Your task to perform on an android device: Show the shopping cart on ebay.com. Add "usb-b" to the cart on ebay.com, then select checkout. Image 0: 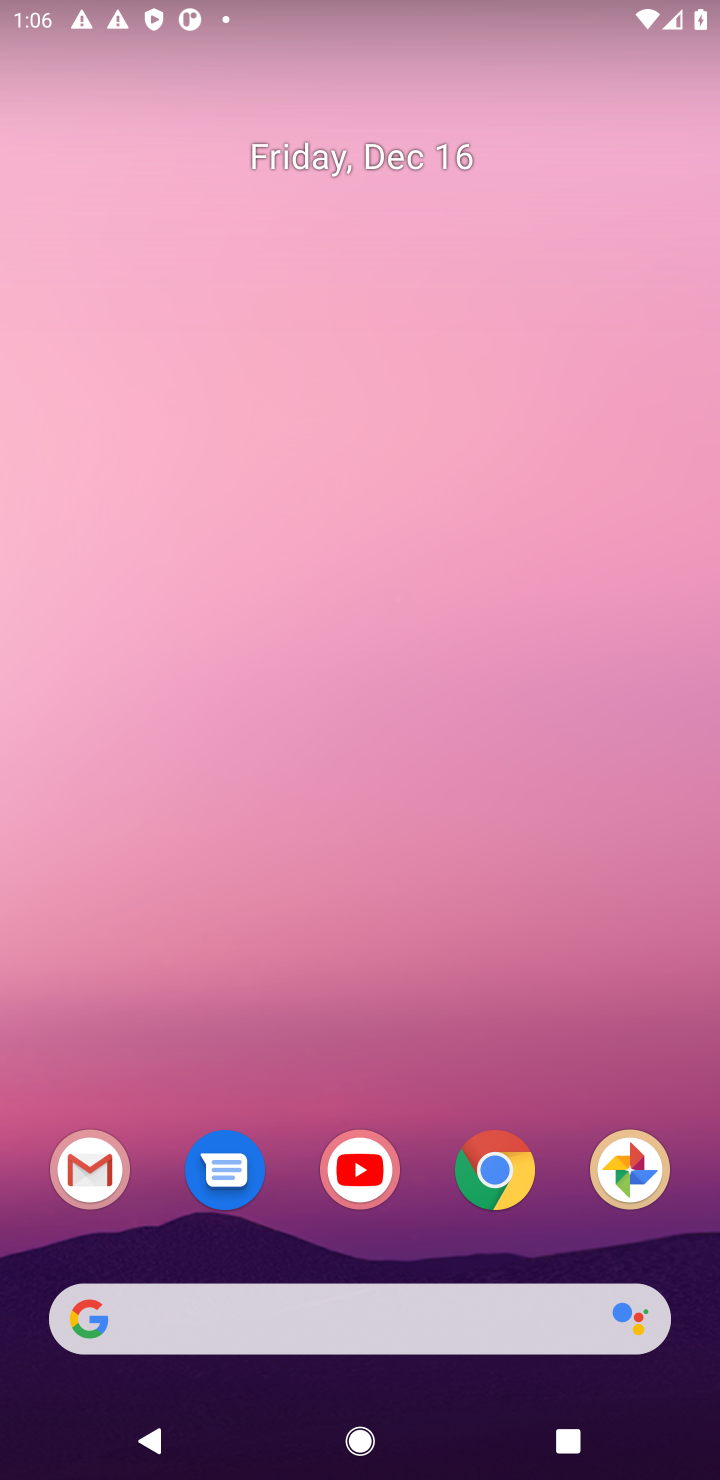
Step 0: click (507, 1178)
Your task to perform on an android device: Show the shopping cart on ebay.com. Add "usb-b" to the cart on ebay.com, then select checkout. Image 1: 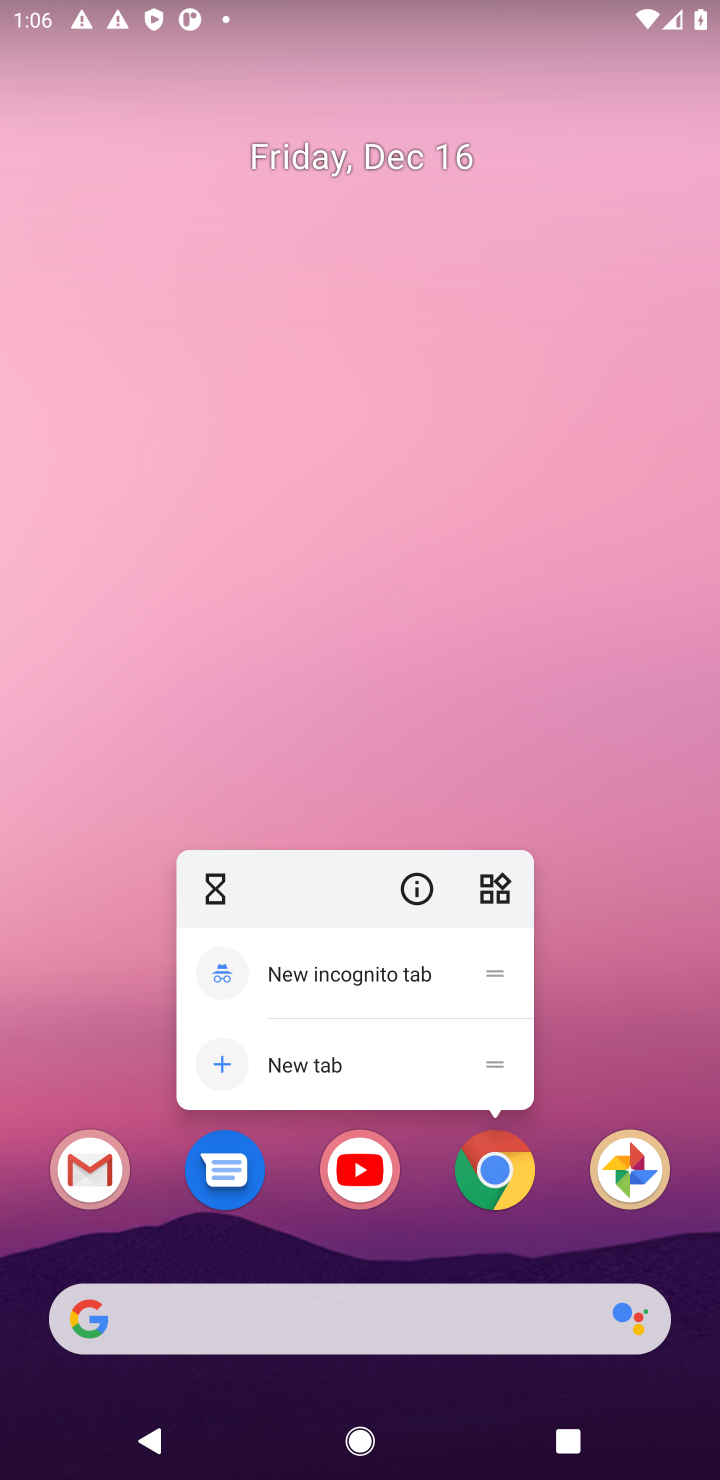
Step 1: click (501, 1179)
Your task to perform on an android device: Show the shopping cart on ebay.com. Add "usb-b" to the cart on ebay.com, then select checkout. Image 2: 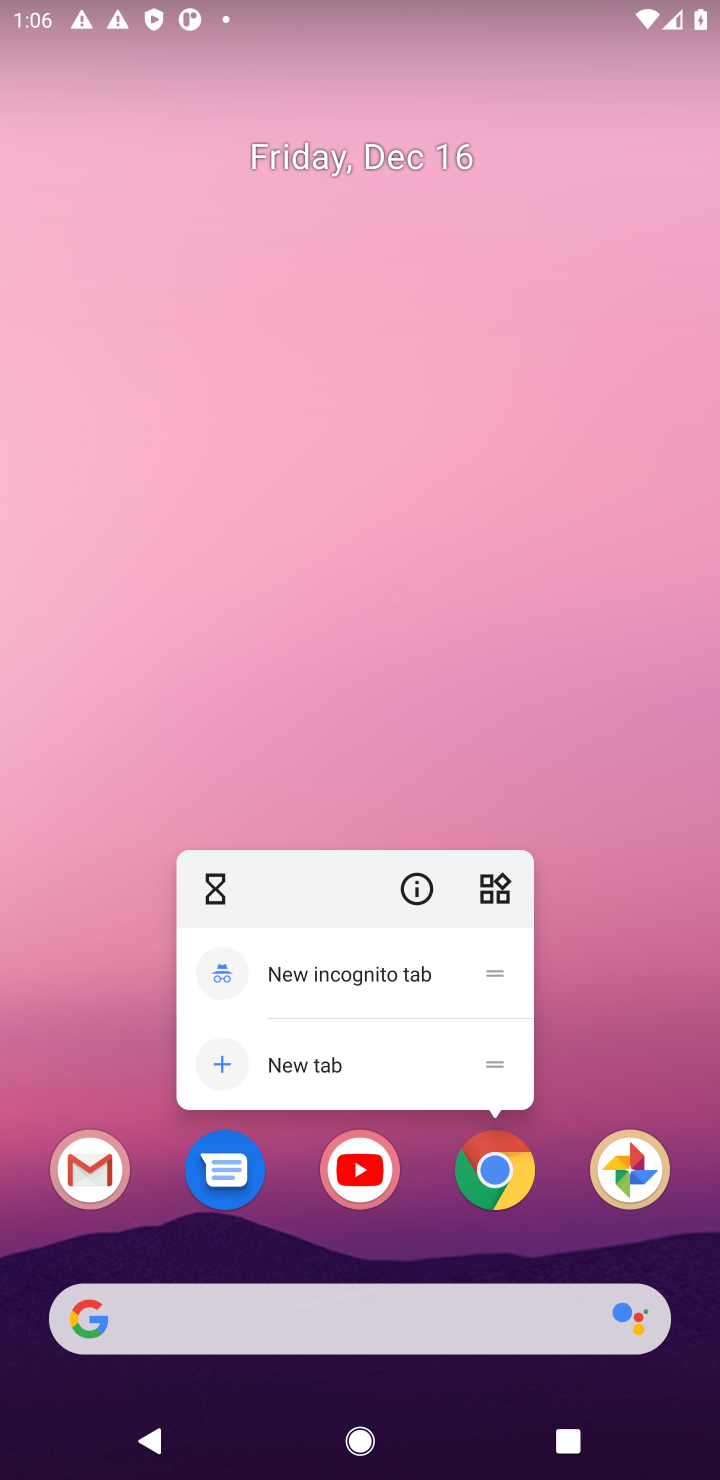
Step 2: click (501, 1179)
Your task to perform on an android device: Show the shopping cart on ebay.com. Add "usb-b" to the cart on ebay.com, then select checkout. Image 3: 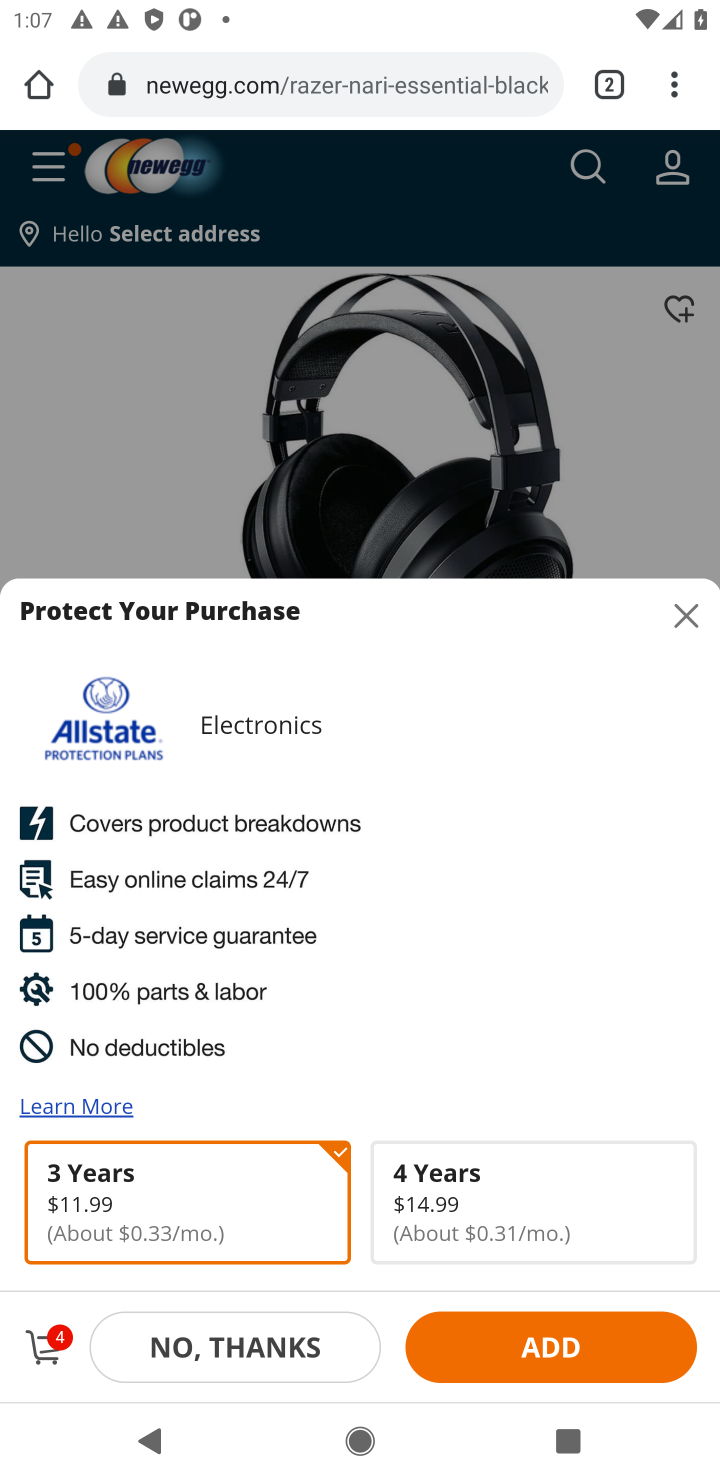
Step 3: click (263, 91)
Your task to perform on an android device: Show the shopping cart on ebay.com. Add "usb-b" to the cart on ebay.com, then select checkout. Image 4: 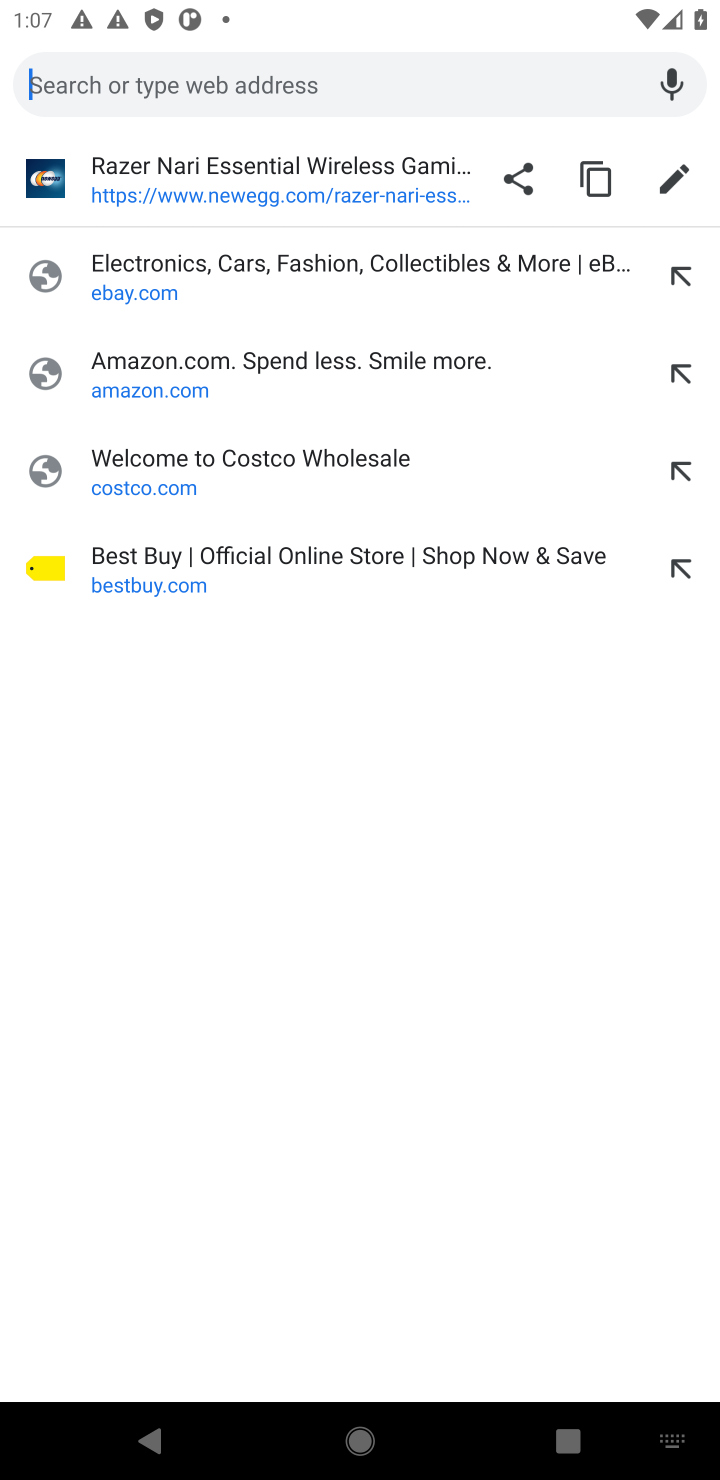
Step 4: type "ebay.com"
Your task to perform on an android device: Show the shopping cart on ebay.com. Add "usb-b" to the cart on ebay.com, then select checkout. Image 5: 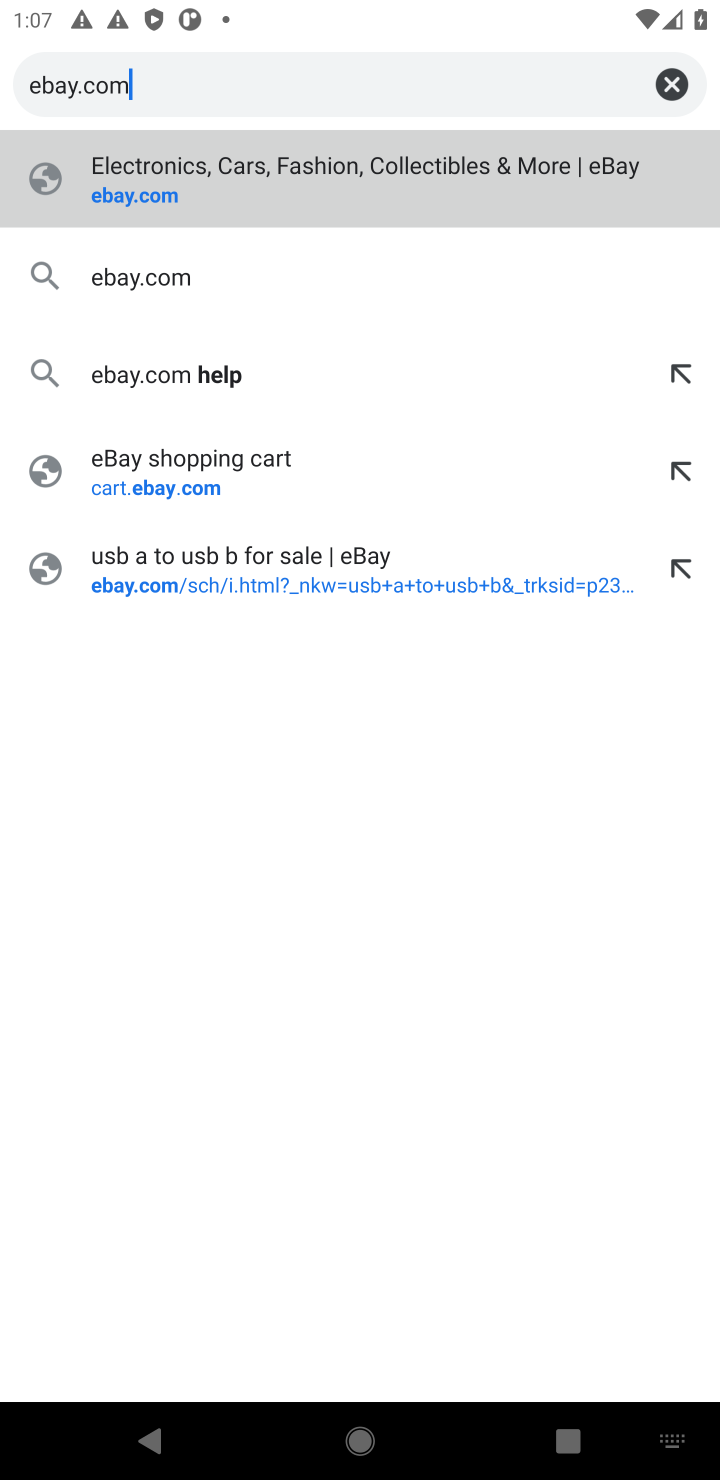
Step 5: click (113, 196)
Your task to perform on an android device: Show the shopping cart on ebay.com. Add "usb-b" to the cart on ebay.com, then select checkout. Image 6: 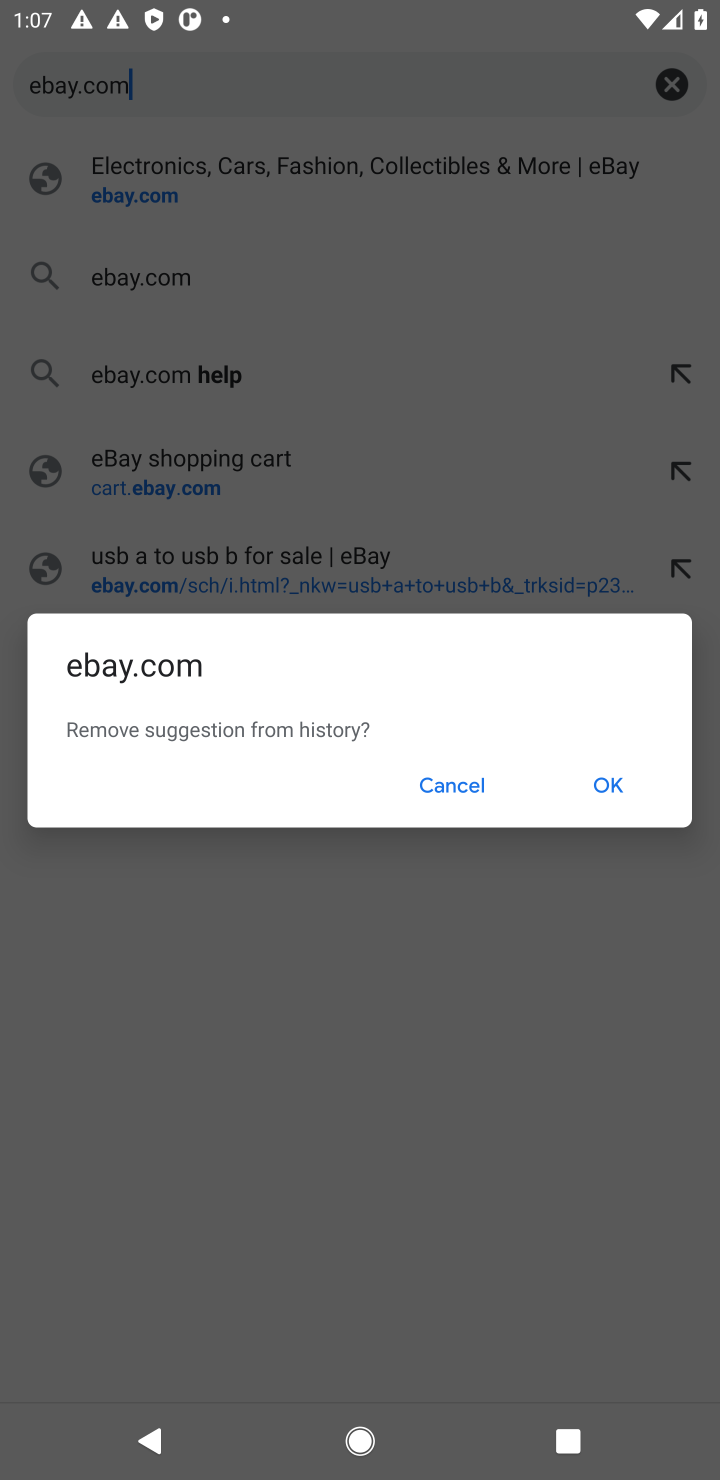
Step 6: click (472, 790)
Your task to perform on an android device: Show the shopping cart on ebay.com. Add "usb-b" to the cart on ebay.com, then select checkout. Image 7: 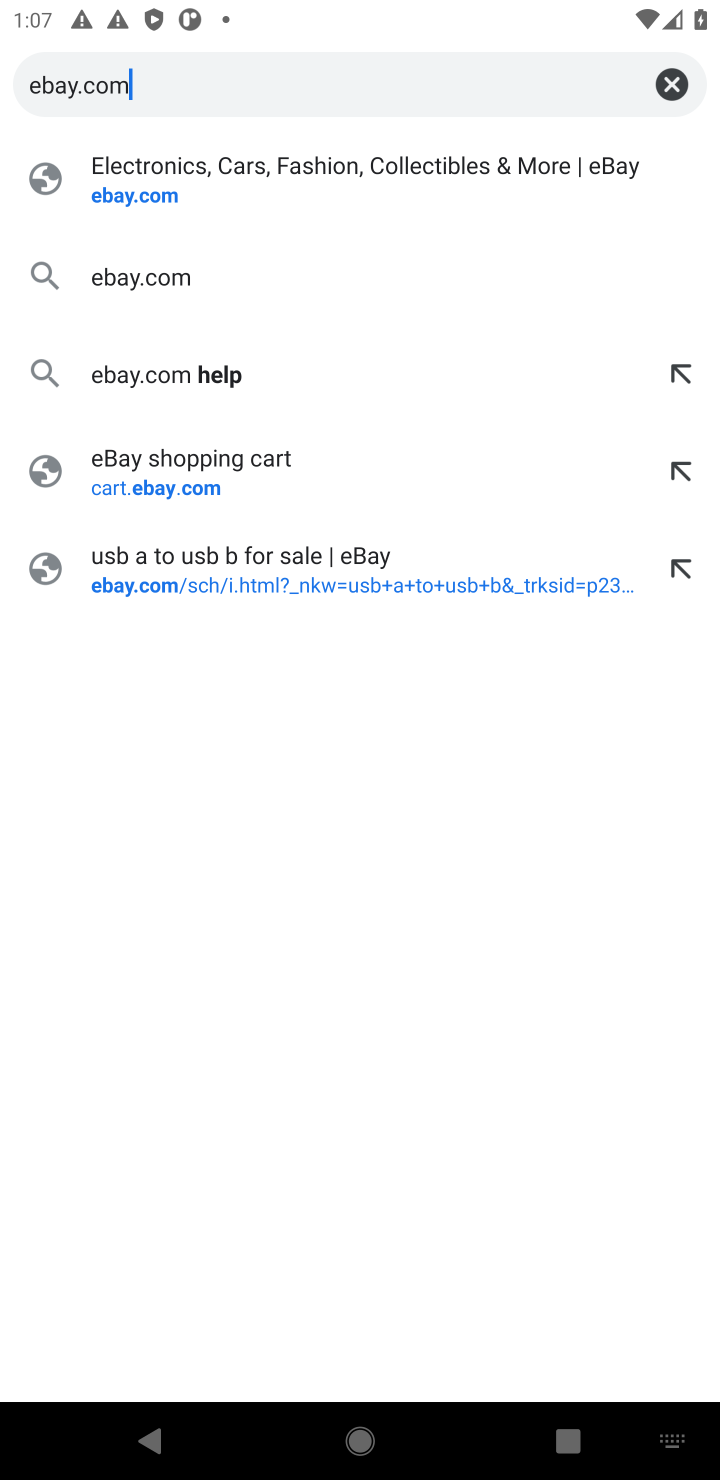
Step 7: click (148, 285)
Your task to perform on an android device: Show the shopping cart on ebay.com. Add "usb-b" to the cart on ebay.com, then select checkout. Image 8: 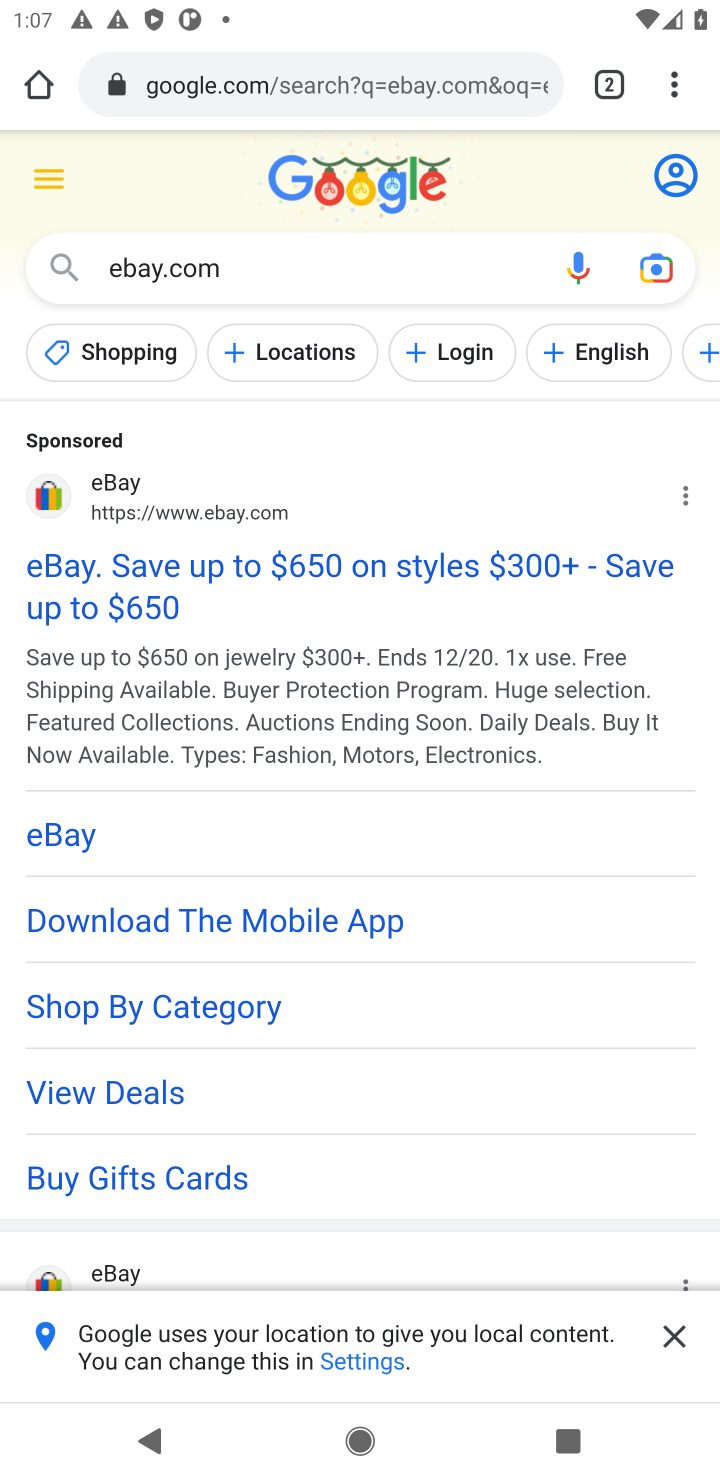
Step 8: drag from (227, 1043) to (274, 532)
Your task to perform on an android device: Show the shopping cart on ebay.com. Add "usb-b" to the cart on ebay.com, then select checkout. Image 9: 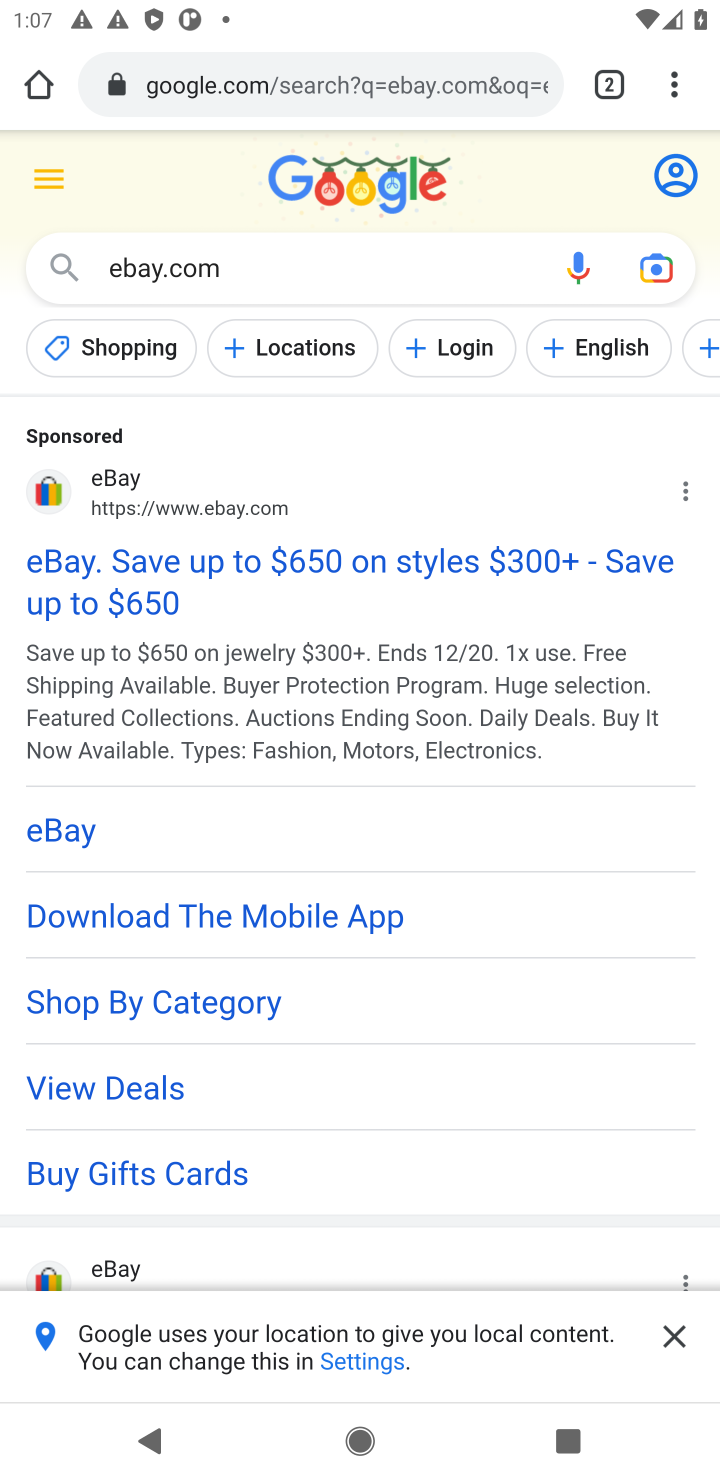
Step 9: drag from (399, 1128) to (426, 802)
Your task to perform on an android device: Show the shopping cart on ebay.com. Add "usb-b" to the cart on ebay.com, then select checkout. Image 10: 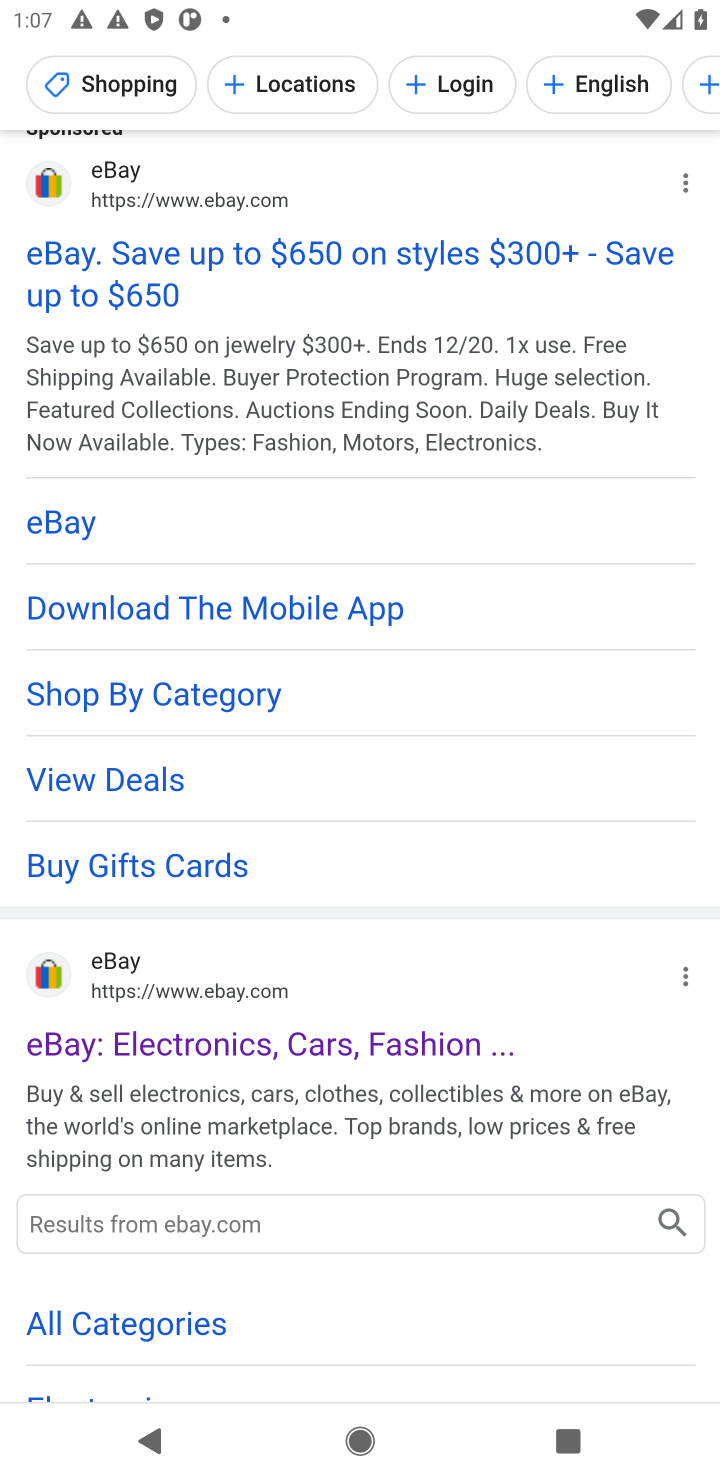
Step 10: click (101, 1051)
Your task to perform on an android device: Show the shopping cart on ebay.com. Add "usb-b" to the cart on ebay.com, then select checkout. Image 11: 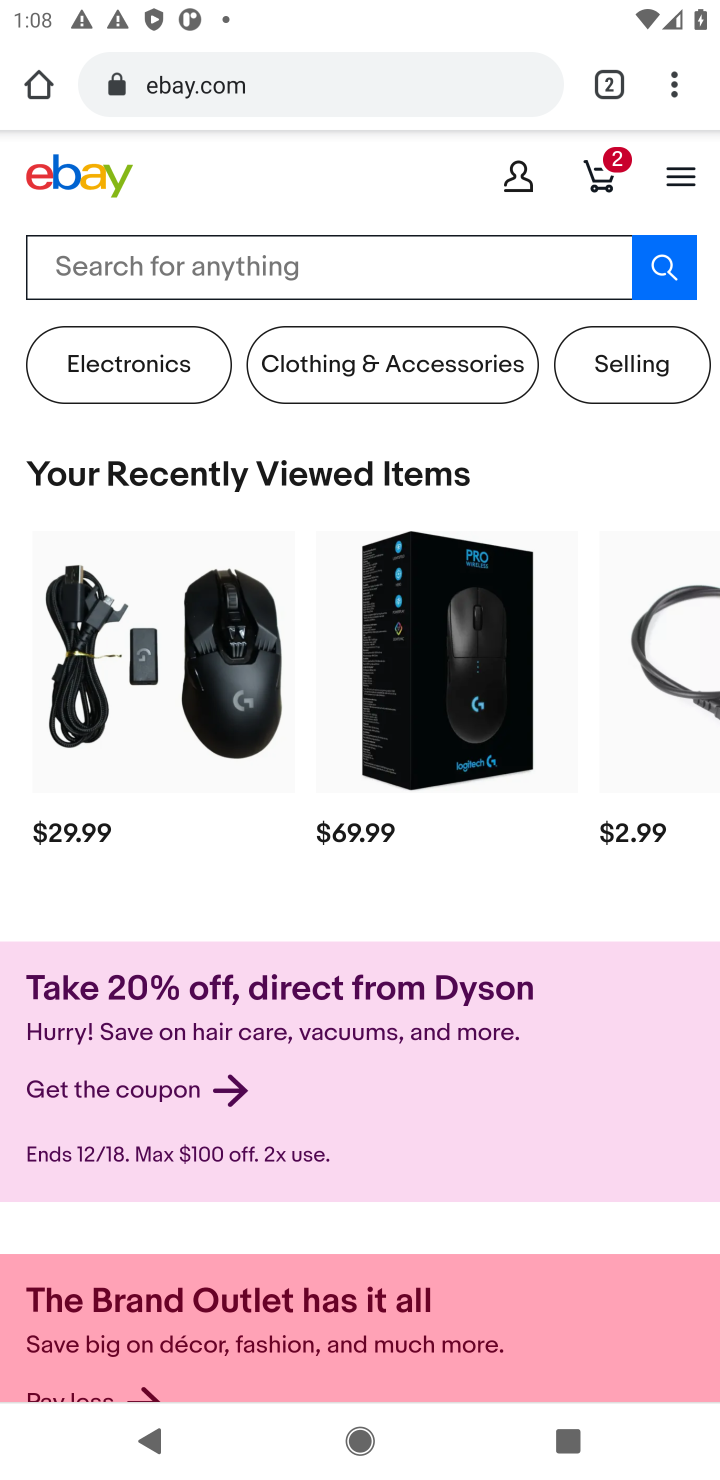
Step 11: click (594, 183)
Your task to perform on an android device: Show the shopping cart on ebay.com. Add "usb-b" to the cart on ebay.com, then select checkout. Image 12: 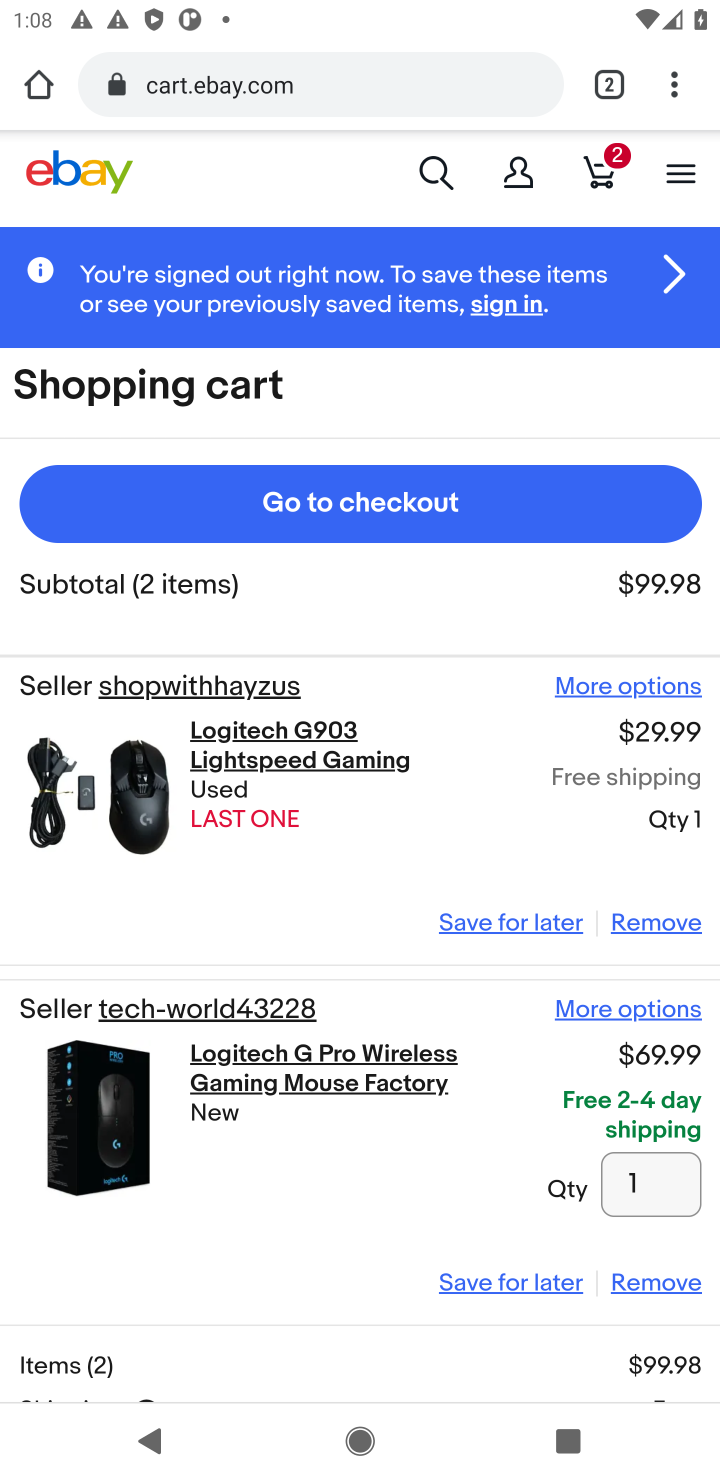
Step 12: click (431, 175)
Your task to perform on an android device: Show the shopping cart on ebay.com. Add "usb-b" to the cart on ebay.com, then select checkout. Image 13: 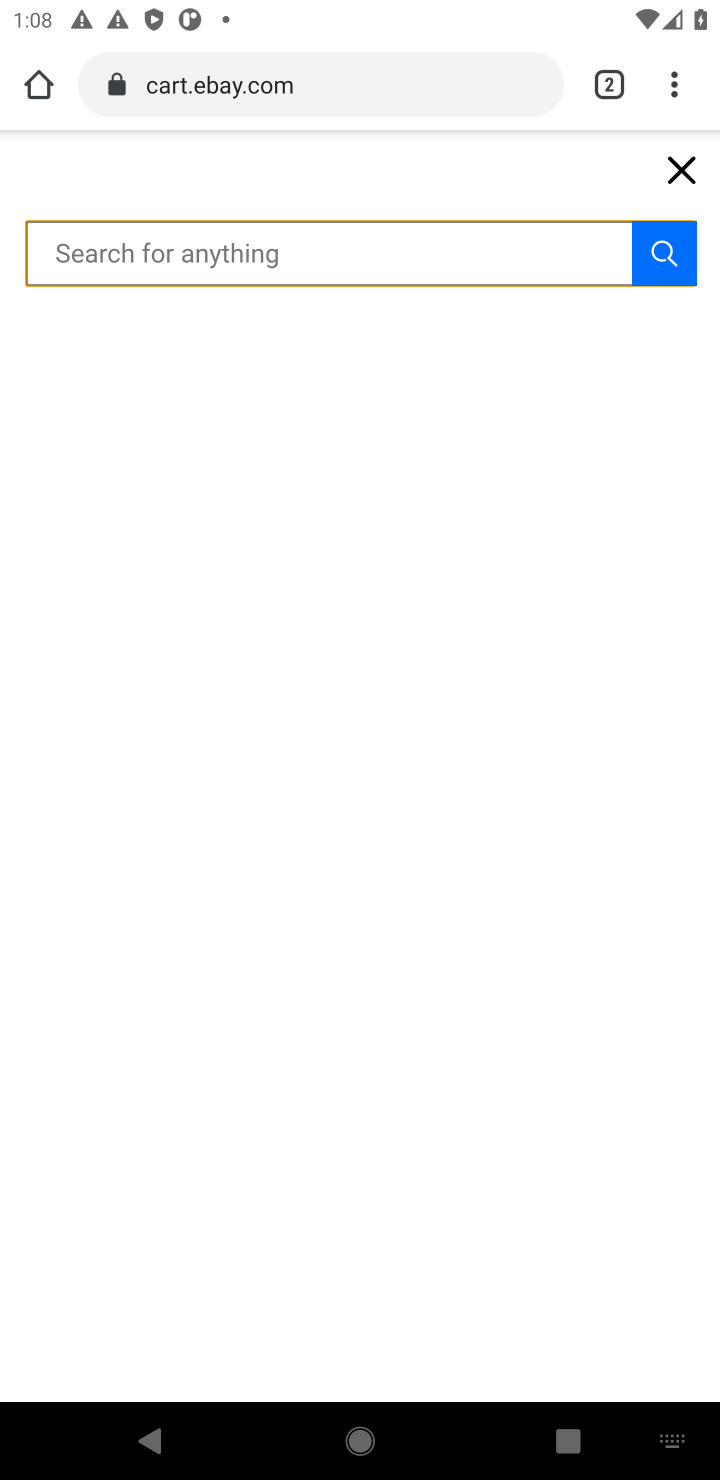
Step 13: type "usb-b"
Your task to perform on an android device: Show the shopping cart on ebay.com. Add "usb-b" to the cart on ebay.com, then select checkout. Image 14: 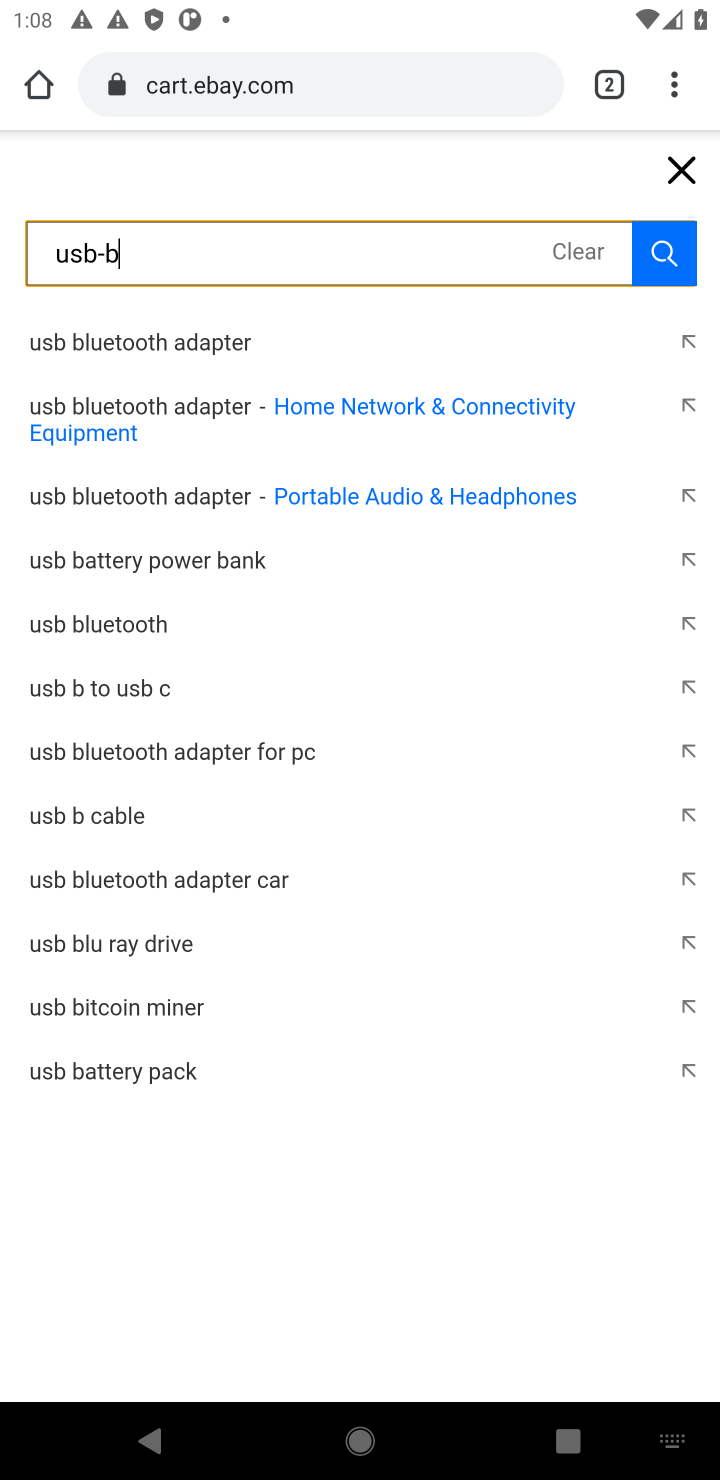
Step 14: click (672, 257)
Your task to perform on an android device: Show the shopping cart on ebay.com. Add "usb-b" to the cart on ebay.com, then select checkout. Image 15: 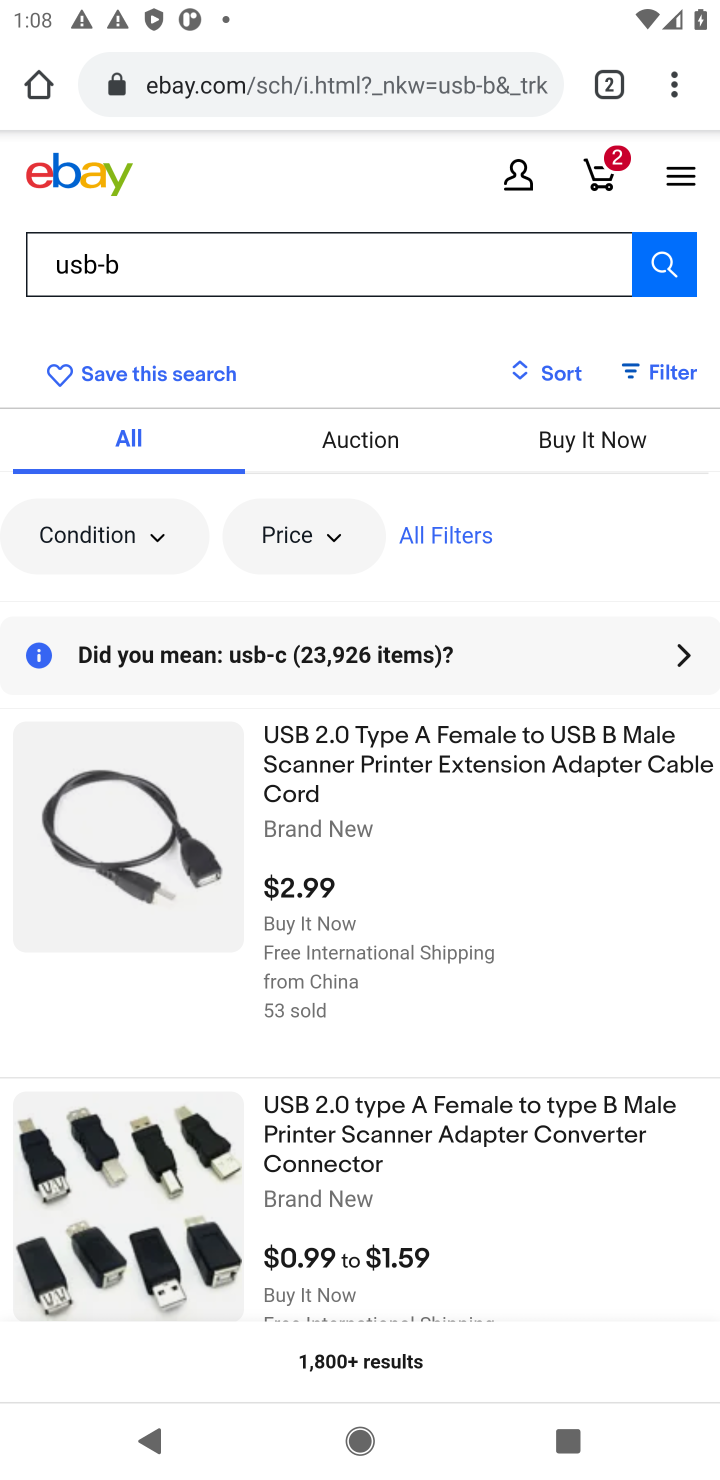
Step 15: click (337, 757)
Your task to perform on an android device: Show the shopping cart on ebay.com. Add "usb-b" to the cart on ebay.com, then select checkout. Image 16: 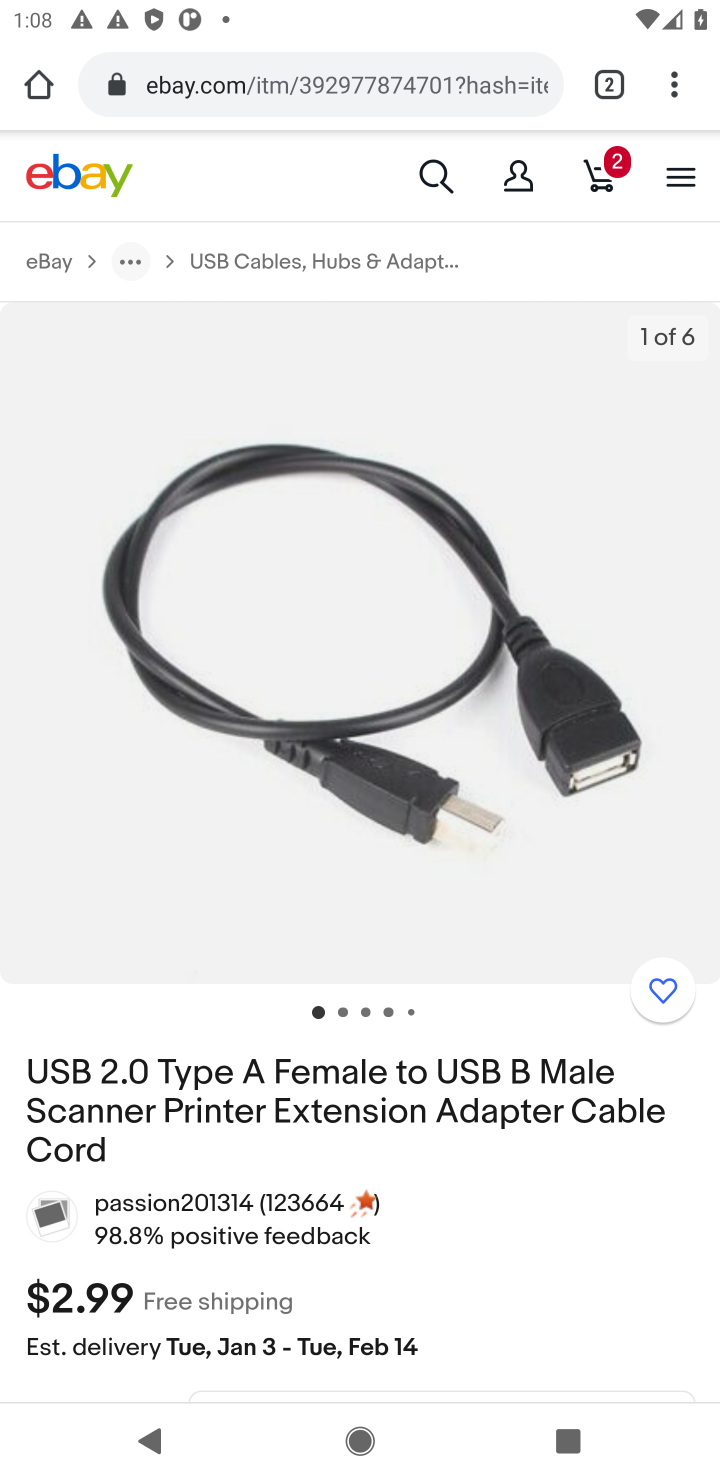
Step 16: drag from (230, 963) to (212, 622)
Your task to perform on an android device: Show the shopping cart on ebay.com. Add "usb-b" to the cart on ebay.com, then select checkout. Image 17: 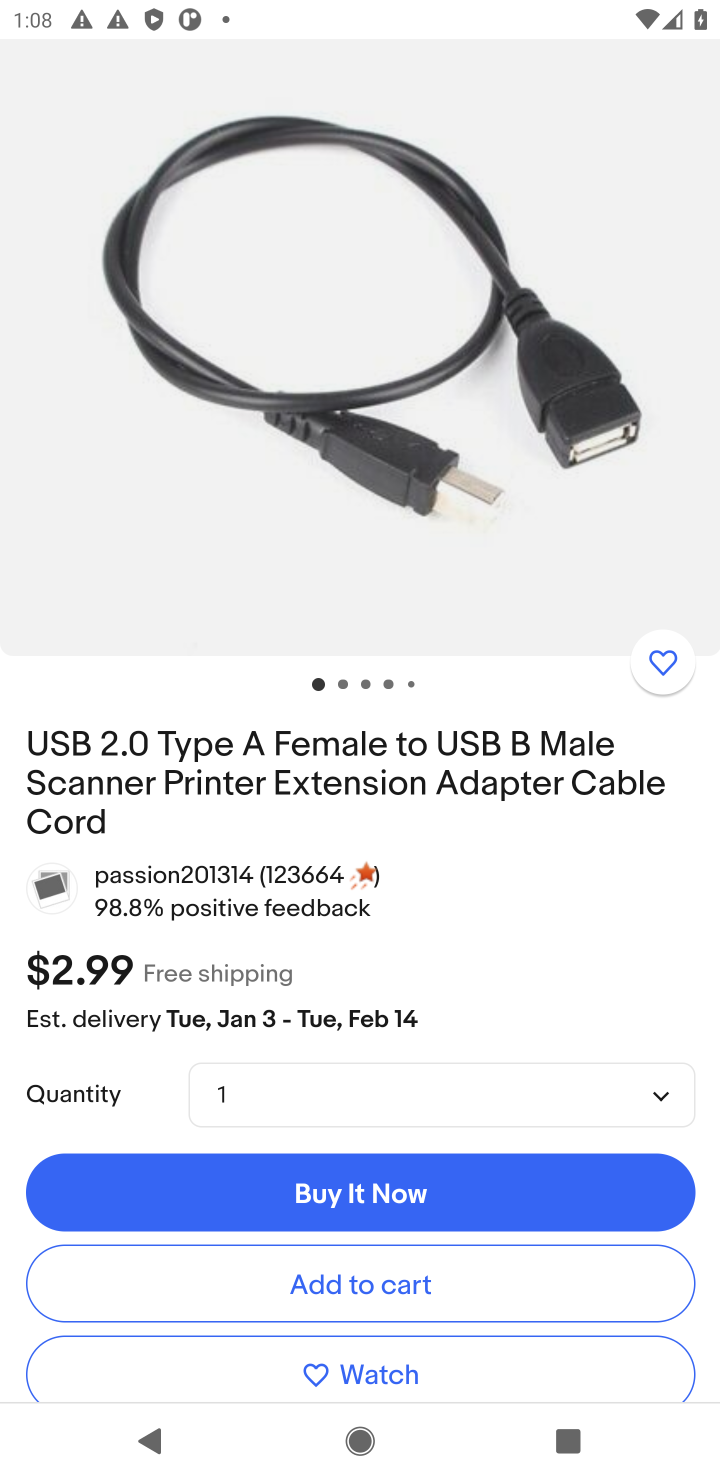
Step 17: click (261, 1270)
Your task to perform on an android device: Show the shopping cart on ebay.com. Add "usb-b" to the cart on ebay.com, then select checkout. Image 18: 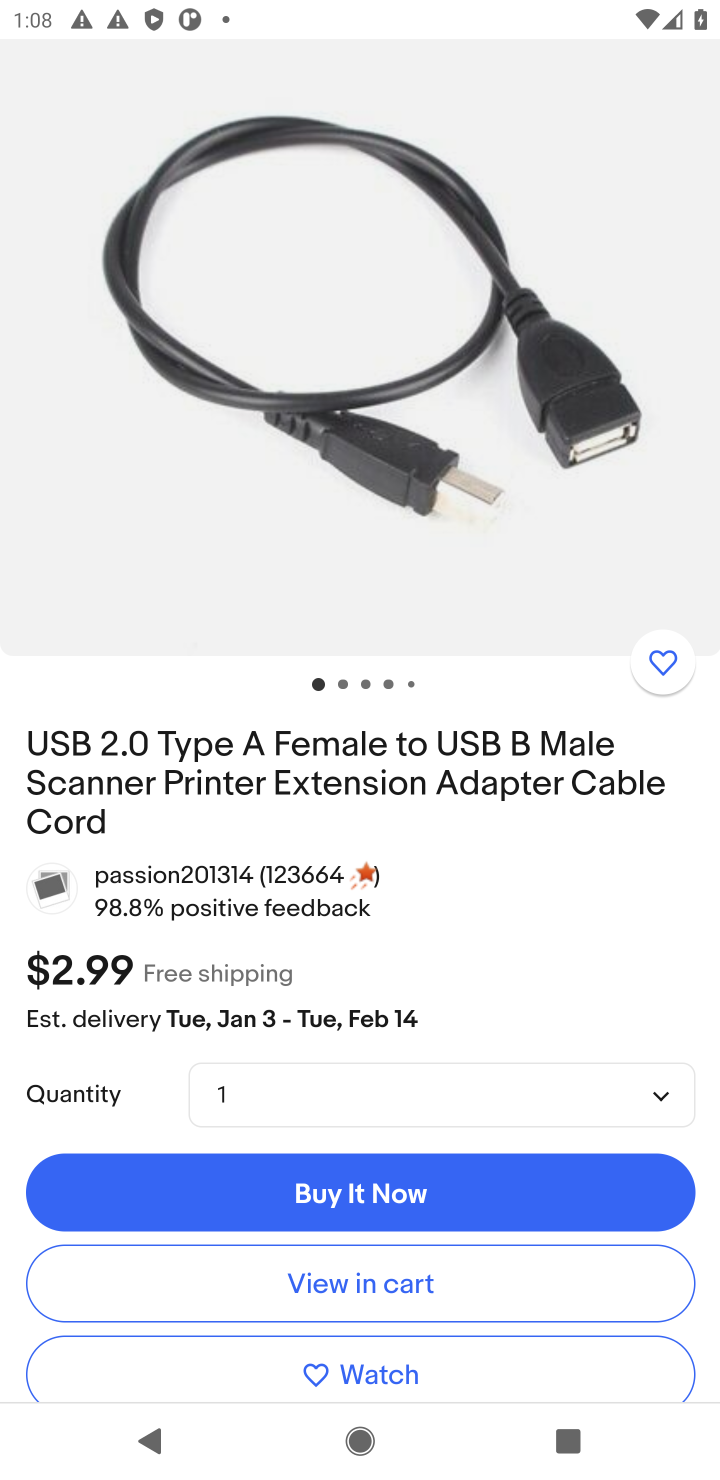
Step 18: click (321, 1285)
Your task to perform on an android device: Show the shopping cart on ebay.com. Add "usb-b" to the cart on ebay.com, then select checkout. Image 19: 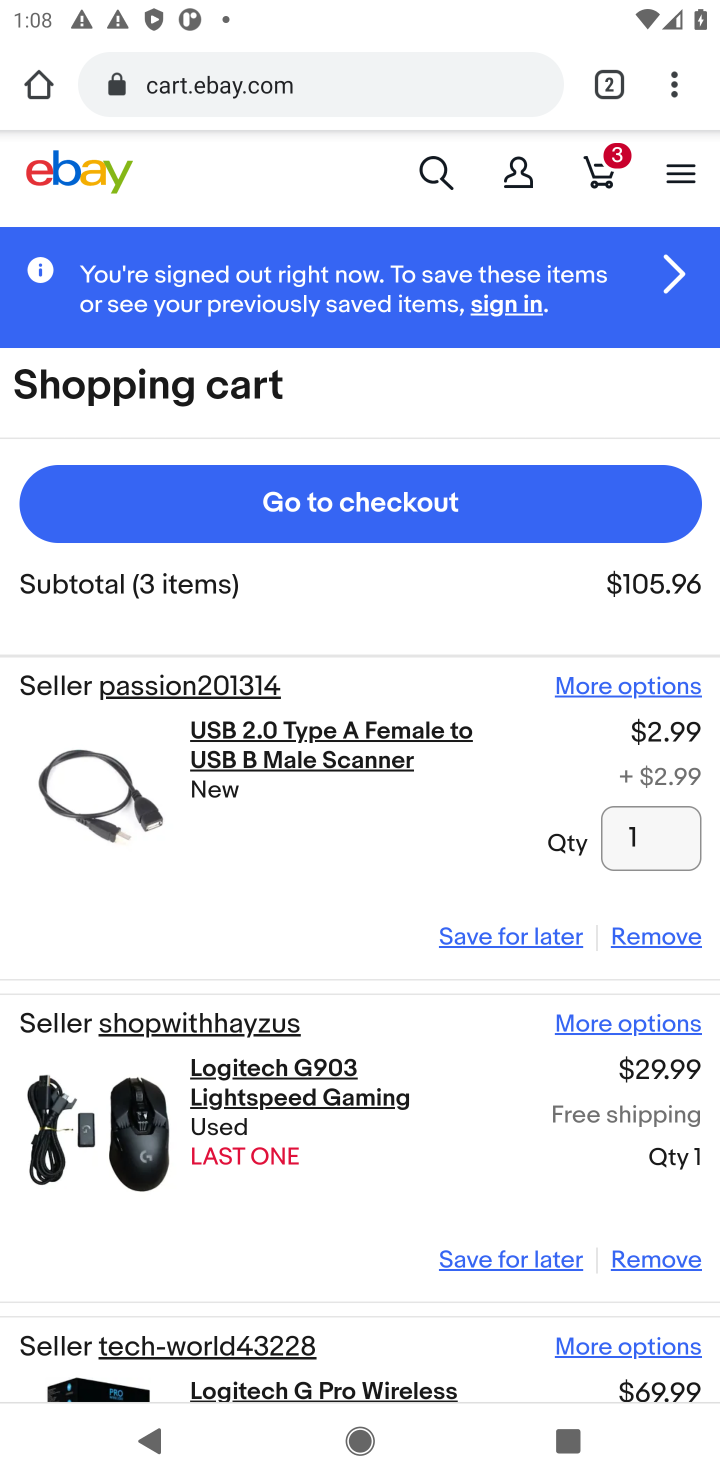
Step 19: click (271, 513)
Your task to perform on an android device: Show the shopping cart on ebay.com. Add "usb-b" to the cart on ebay.com, then select checkout. Image 20: 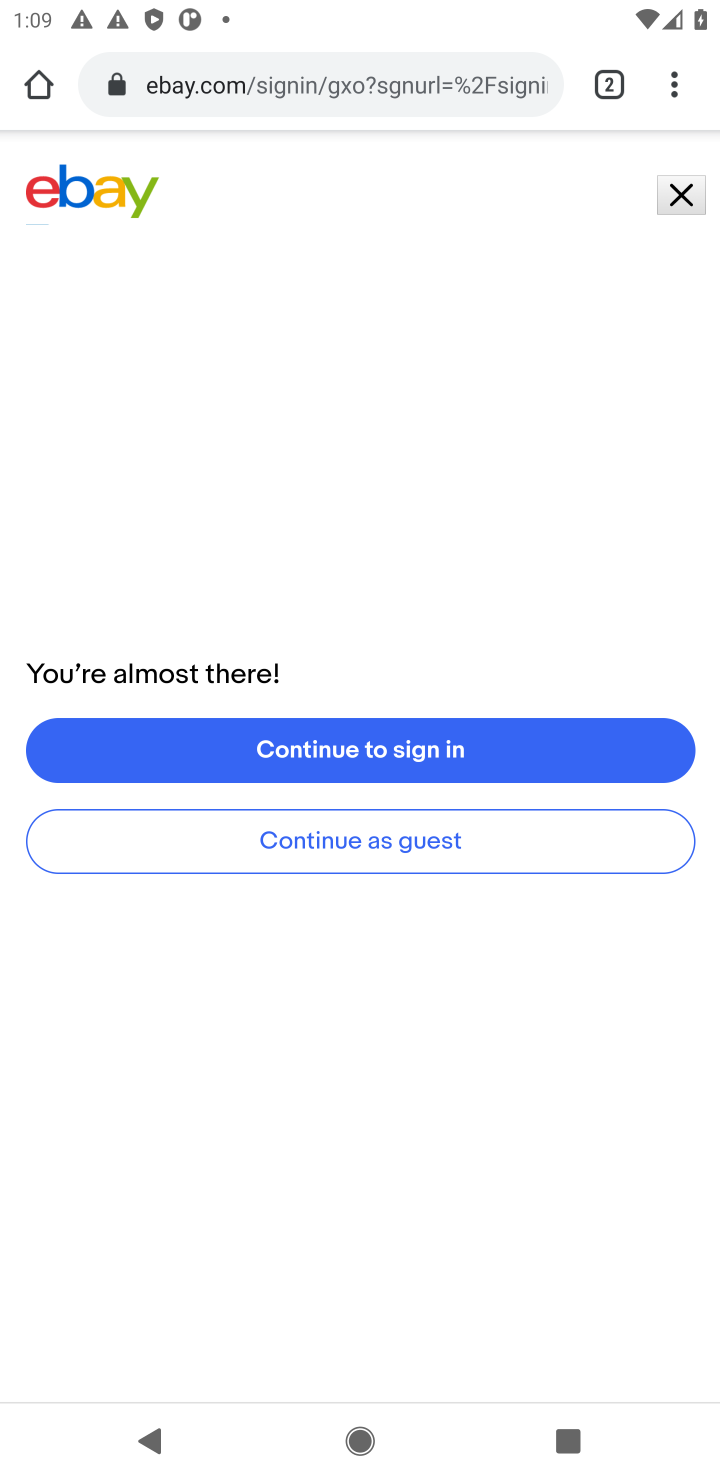
Step 20: task complete